Your task to perform on an android device: Go to eBay Image 0: 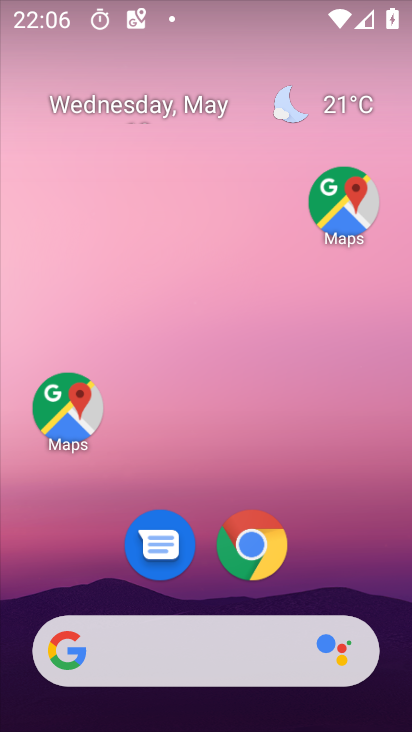
Step 0: click (243, 550)
Your task to perform on an android device: Go to eBay Image 1: 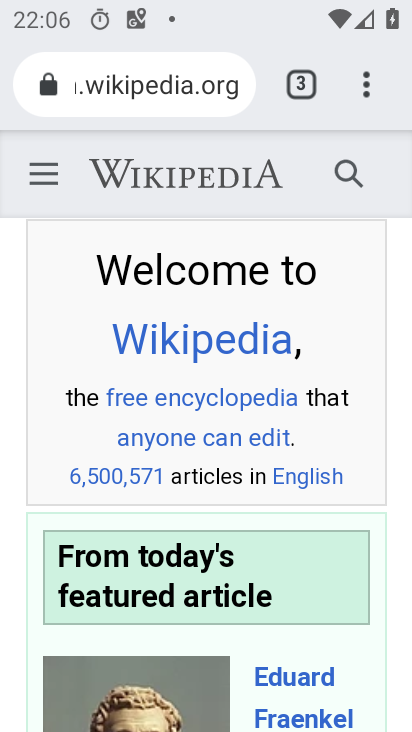
Step 1: click (168, 87)
Your task to perform on an android device: Go to eBay Image 2: 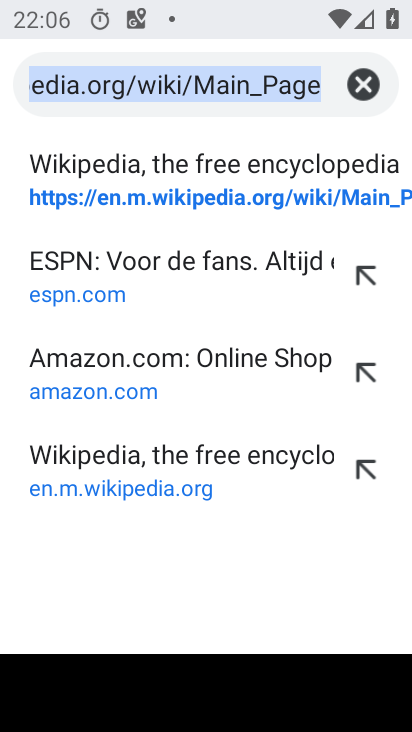
Step 2: type "ebay"
Your task to perform on an android device: Go to eBay Image 3: 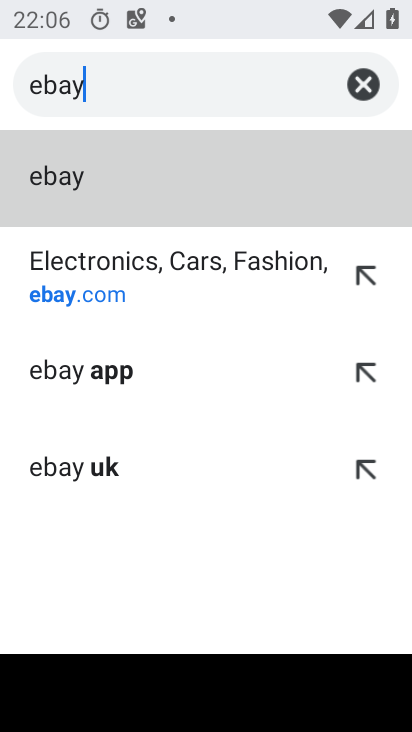
Step 3: click (84, 179)
Your task to perform on an android device: Go to eBay Image 4: 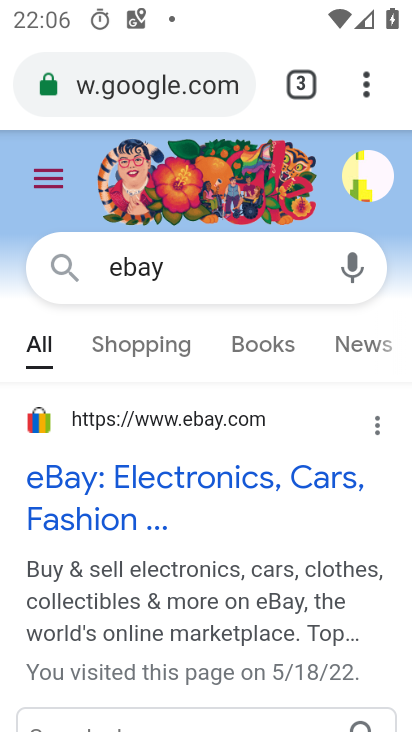
Step 4: click (77, 485)
Your task to perform on an android device: Go to eBay Image 5: 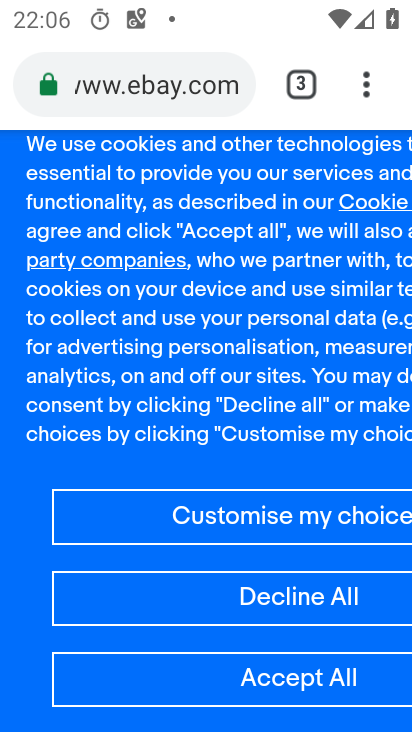
Step 5: task complete